Your task to perform on an android device: What's the weather today? Image 0: 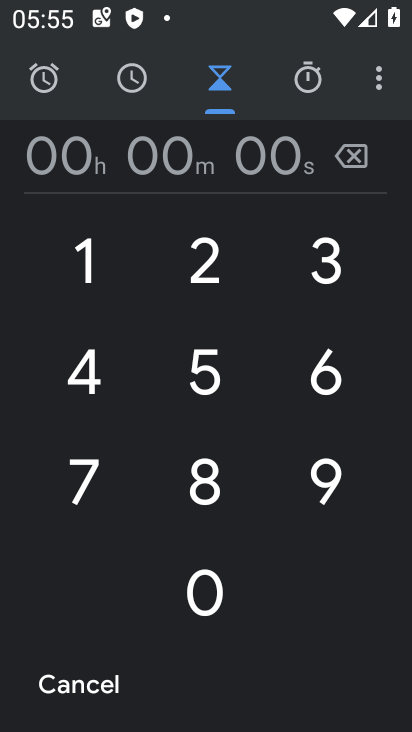
Step 0: press home button
Your task to perform on an android device: What's the weather today? Image 1: 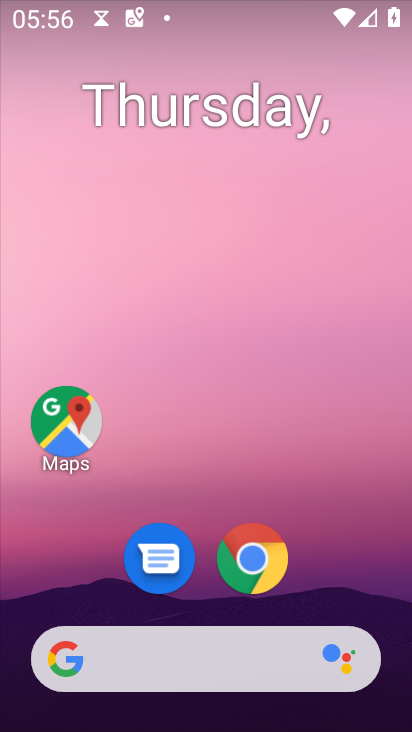
Step 1: click (214, 659)
Your task to perform on an android device: What's the weather today? Image 2: 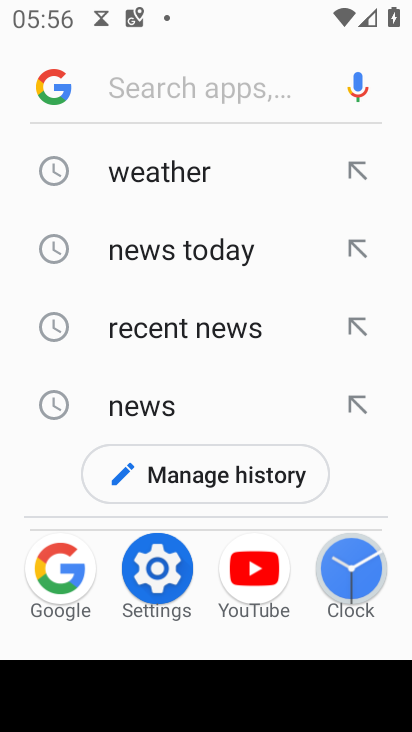
Step 2: click (177, 176)
Your task to perform on an android device: What's the weather today? Image 3: 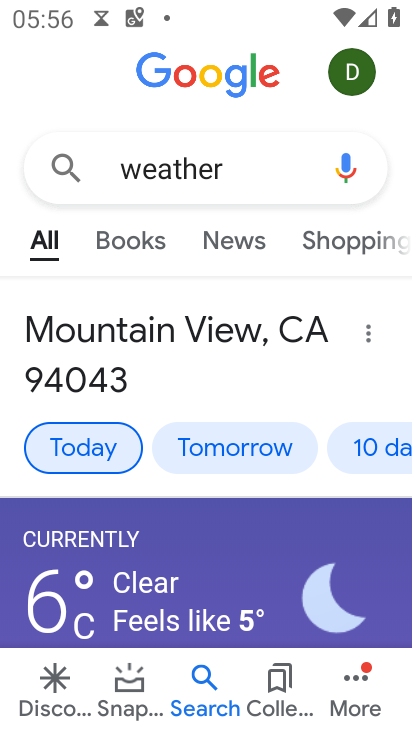
Step 3: task complete